Your task to perform on an android device: What's on my calendar tomorrow? Image 0: 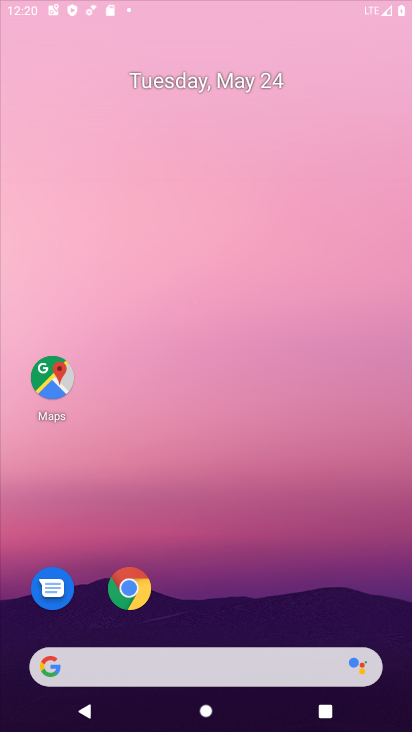
Step 0: drag from (174, 605) to (168, 41)
Your task to perform on an android device: What's on my calendar tomorrow? Image 1: 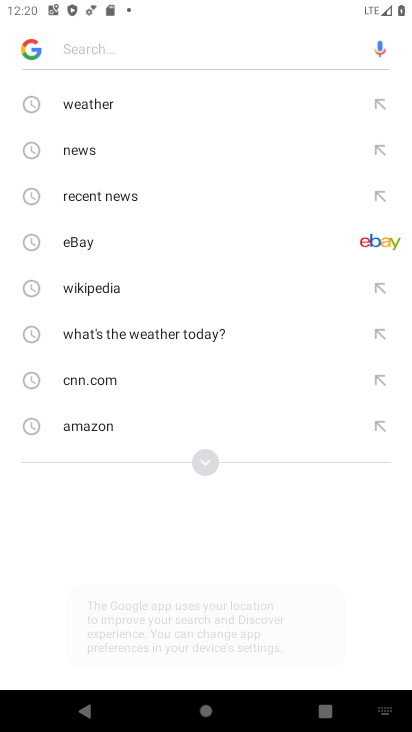
Step 1: press home button
Your task to perform on an android device: What's on my calendar tomorrow? Image 2: 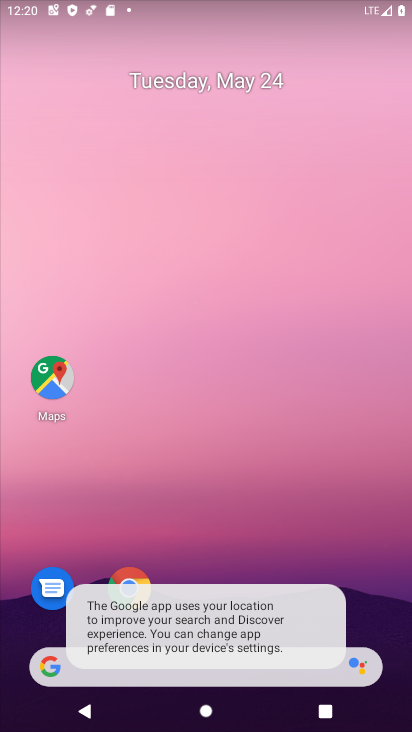
Step 2: drag from (189, 568) to (184, 120)
Your task to perform on an android device: What's on my calendar tomorrow? Image 3: 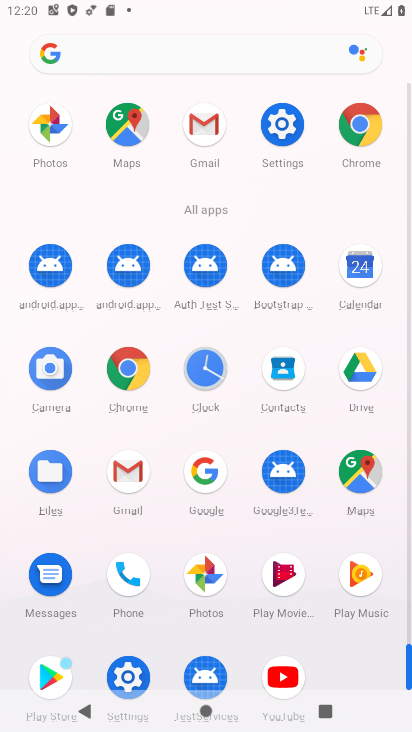
Step 3: click (375, 292)
Your task to perform on an android device: What's on my calendar tomorrow? Image 4: 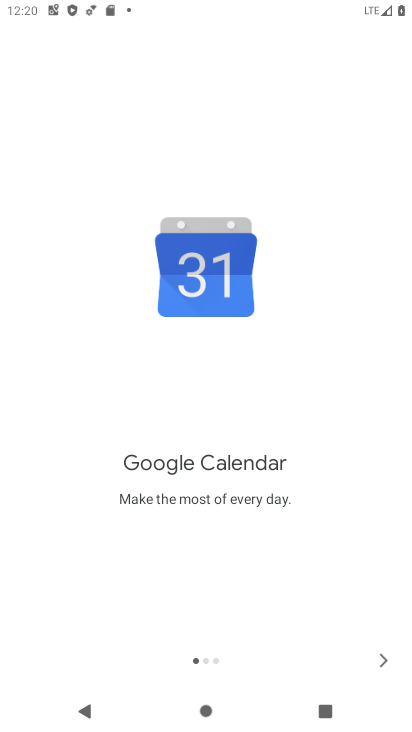
Step 4: click (392, 671)
Your task to perform on an android device: What's on my calendar tomorrow? Image 5: 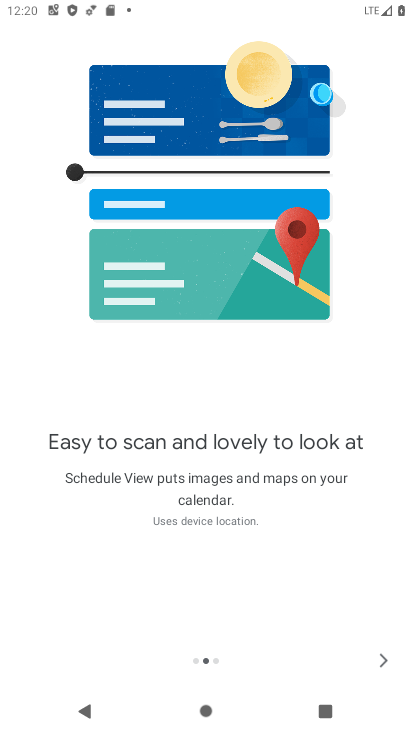
Step 5: click (387, 667)
Your task to perform on an android device: What's on my calendar tomorrow? Image 6: 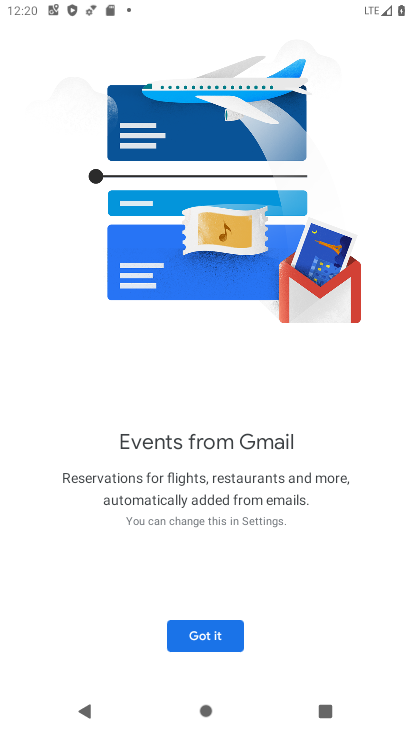
Step 6: click (387, 667)
Your task to perform on an android device: What's on my calendar tomorrow? Image 7: 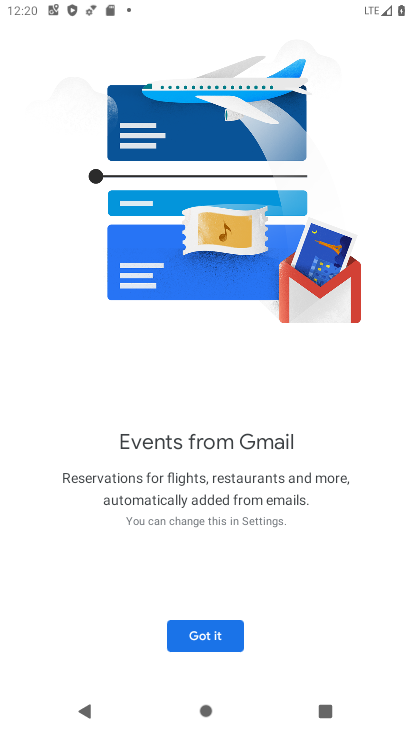
Step 7: click (213, 643)
Your task to perform on an android device: What's on my calendar tomorrow? Image 8: 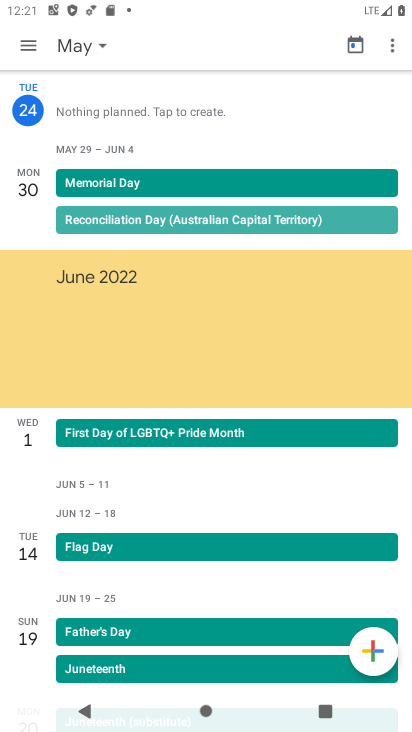
Step 8: task complete